Your task to perform on an android device: turn off wifi Image 0: 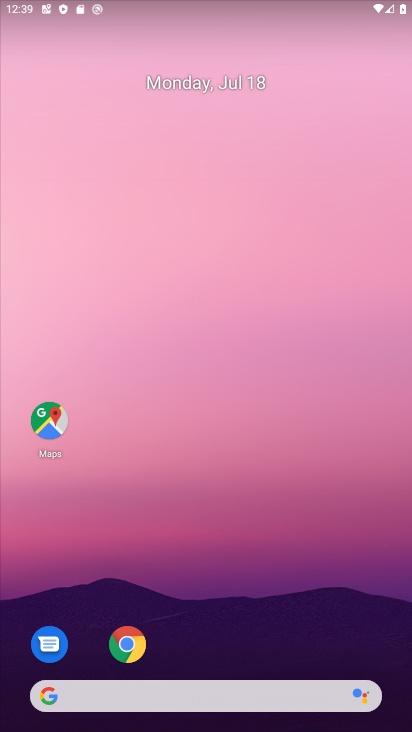
Step 0: drag from (234, 638) to (239, 121)
Your task to perform on an android device: turn off wifi Image 1: 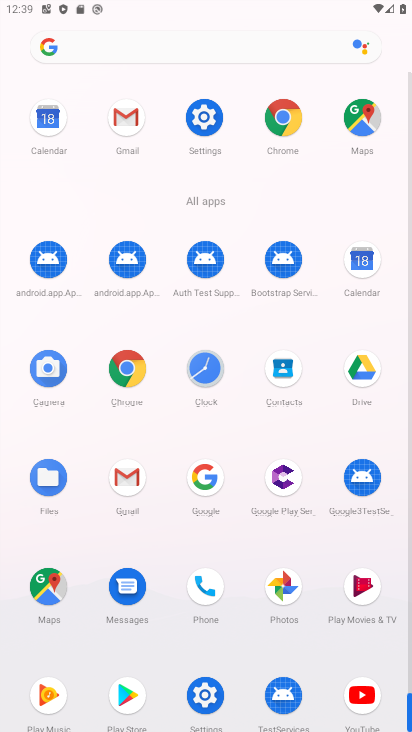
Step 1: click (196, 107)
Your task to perform on an android device: turn off wifi Image 2: 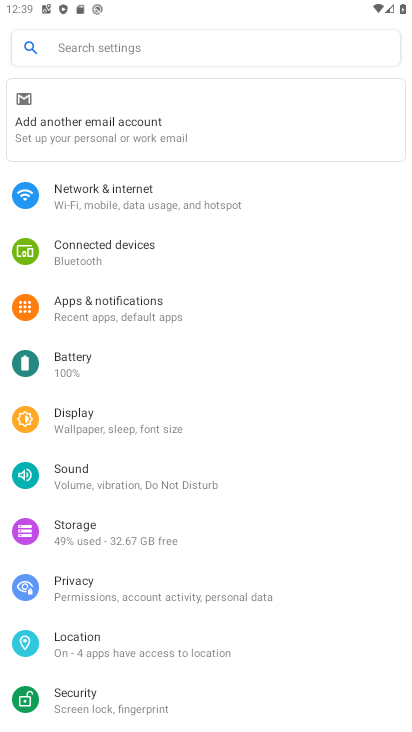
Step 2: click (164, 189)
Your task to perform on an android device: turn off wifi Image 3: 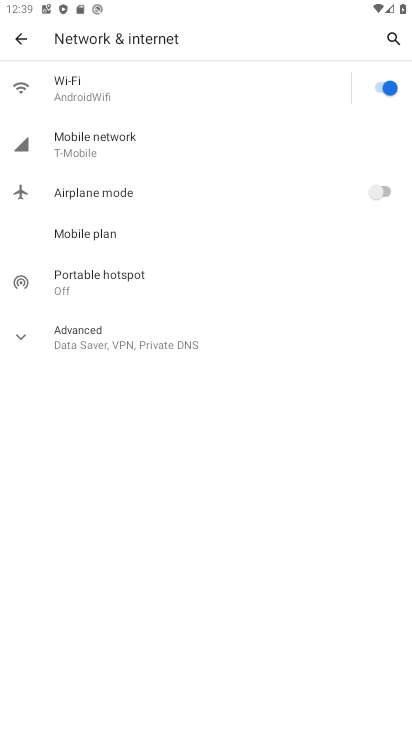
Step 3: click (387, 86)
Your task to perform on an android device: turn off wifi Image 4: 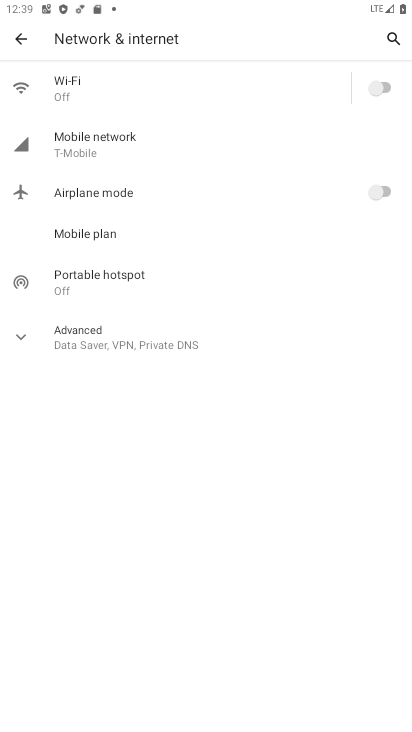
Step 4: task complete